Your task to perform on an android device: Go to Android settings Image 0: 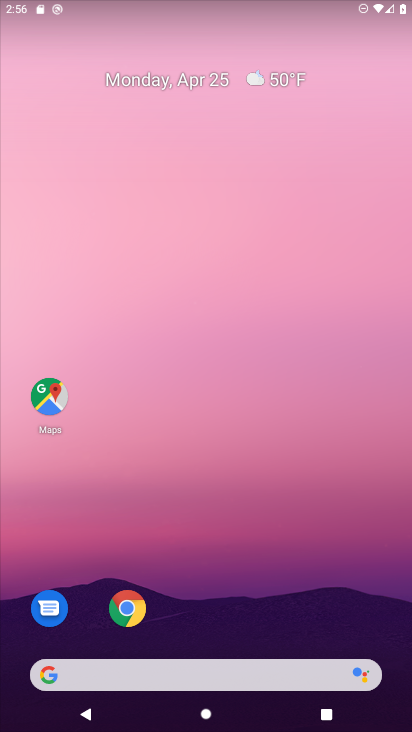
Step 0: drag from (206, 635) to (212, 203)
Your task to perform on an android device: Go to Android settings Image 1: 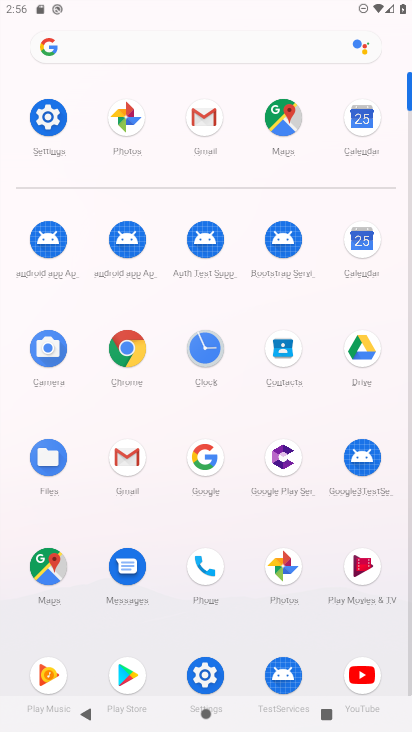
Step 1: click (49, 116)
Your task to perform on an android device: Go to Android settings Image 2: 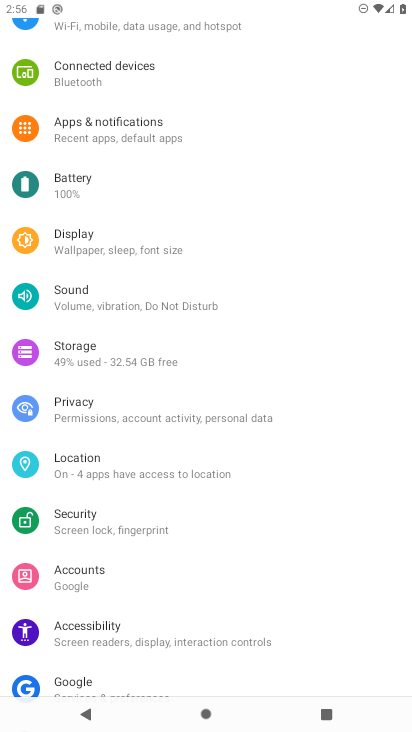
Step 2: task complete